Your task to perform on an android device: What's the weather going to be tomorrow? Image 0: 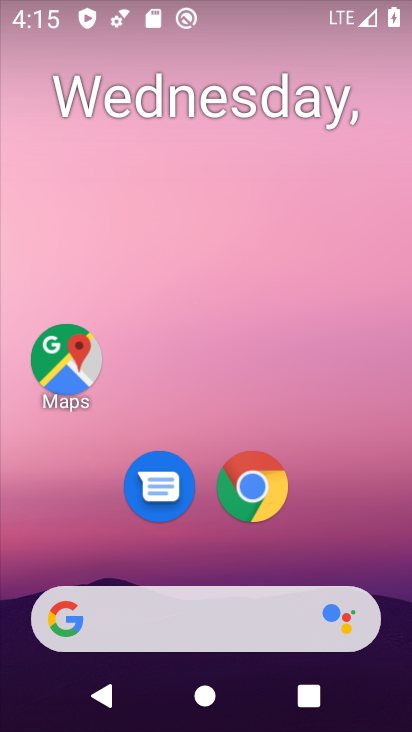
Step 0: drag from (384, 706) to (357, 79)
Your task to perform on an android device: What's the weather going to be tomorrow? Image 1: 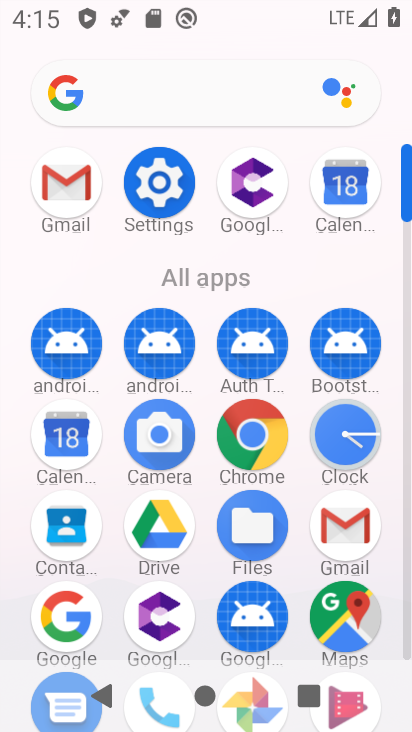
Step 1: click (52, 622)
Your task to perform on an android device: What's the weather going to be tomorrow? Image 2: 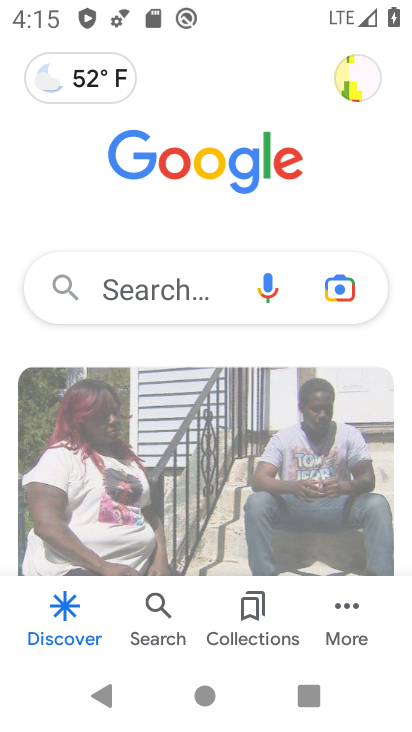
Step 2: click (88, 79)
Your task to perform on an android device: What's the weather going to be tomorrow? Image 3: 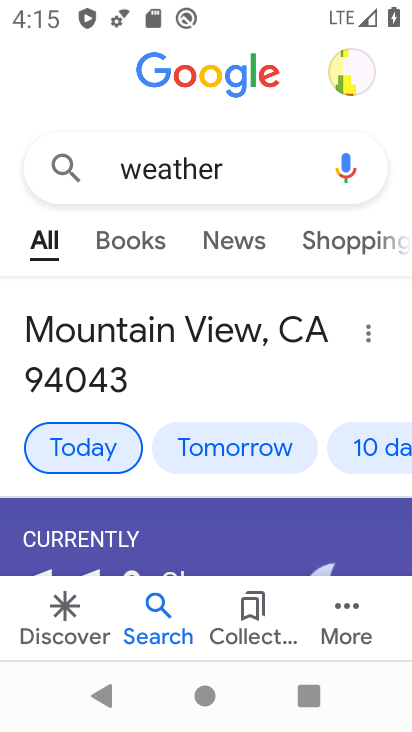
Step 3: click (247, 441)
Your task to perform on an android device: What's the weather going to be tomorrow? Image 4: 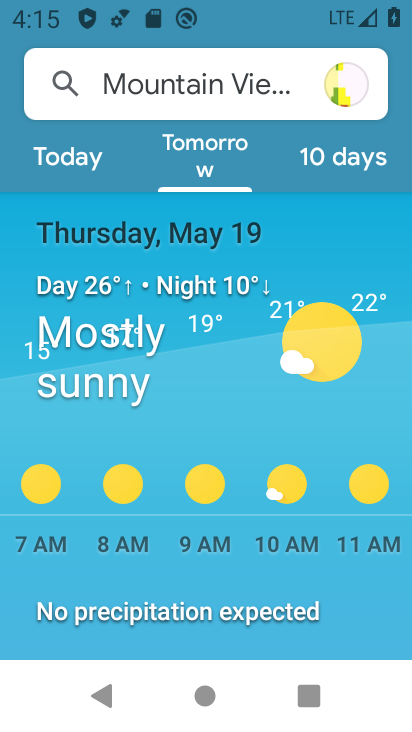
Step 4: task complete